Your task to perform on an android device: Go to Yahoo.com Image 0: 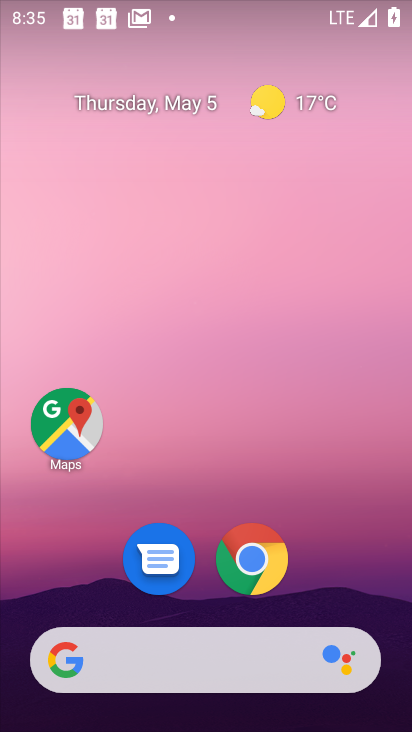
Step 0: click (251, 557)
Your task to perform on an android device: Go to Yahoo.com Image 1: 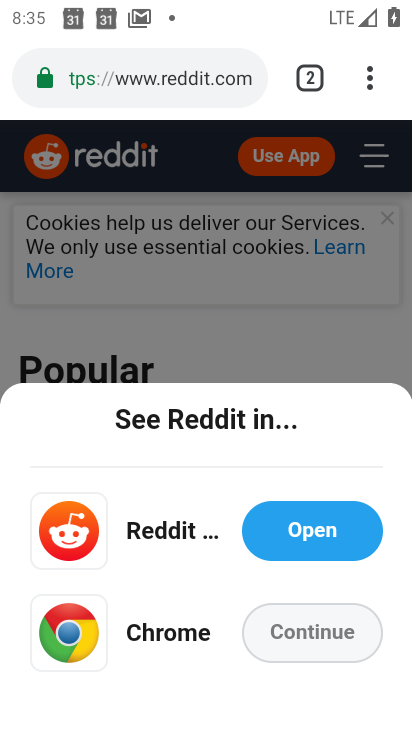
Step 1: click (152, 80)
Your task to perform on an android device: Go to Yahoo.com Image 2: 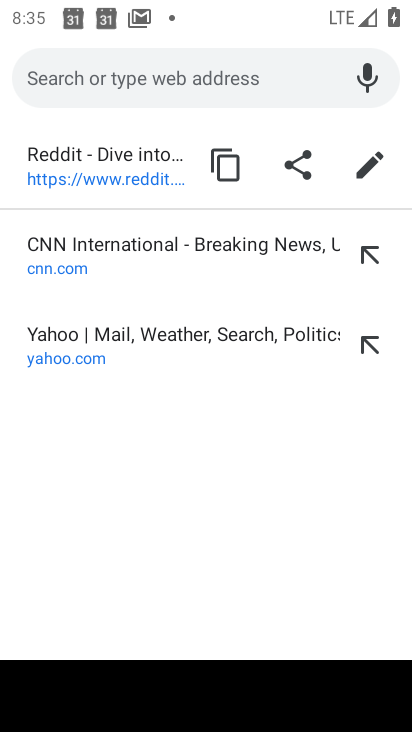
Step 2: click (168, 336)
Your task to perform on an android device: Go to Yahoo.com Image 3: 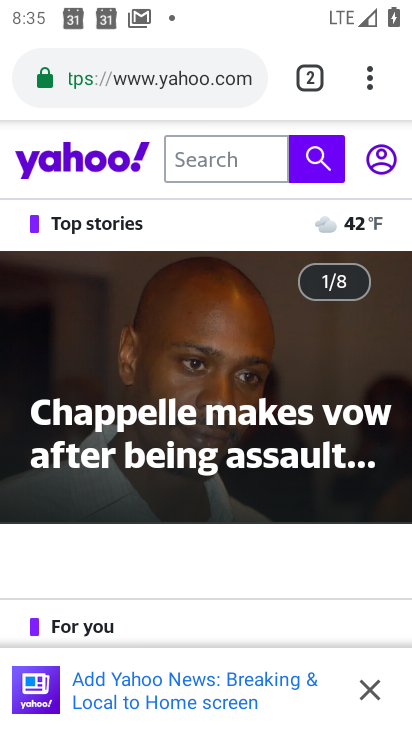
Step 3: task complete